Your task to perform on an android device: check android version Image 0: 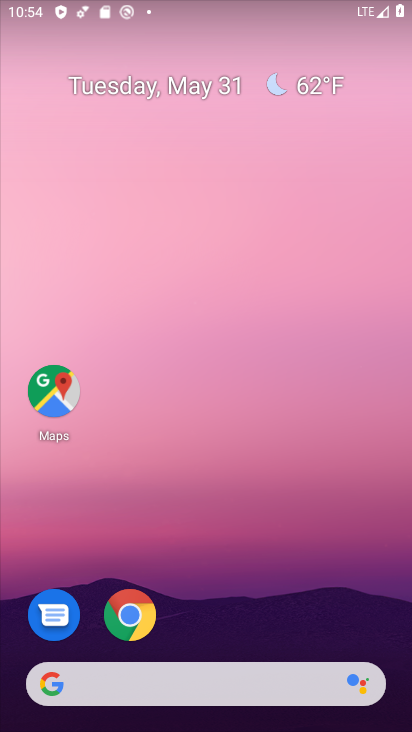
Step 0: drag from (221, 691) to (252, 0)
Your task to perform on an android device: check android version Image 1: 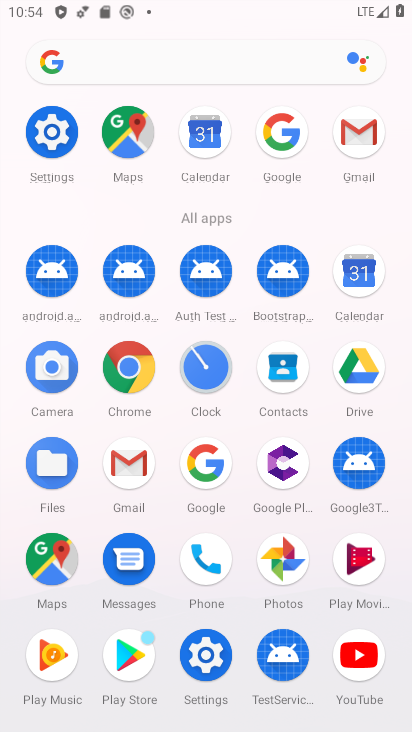
Step 1: click (53, 141)
Your task to perform on an android device: check android version Image 2: 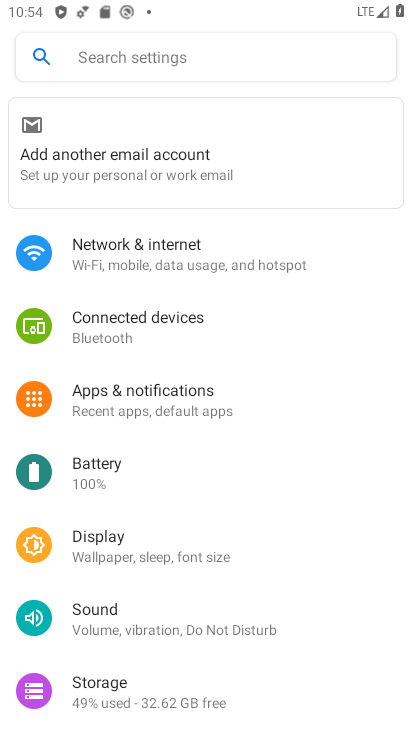
Step 2: drag from (179, 610) to (5, 531)
Your task to perform on an android device: check android version Image 3: 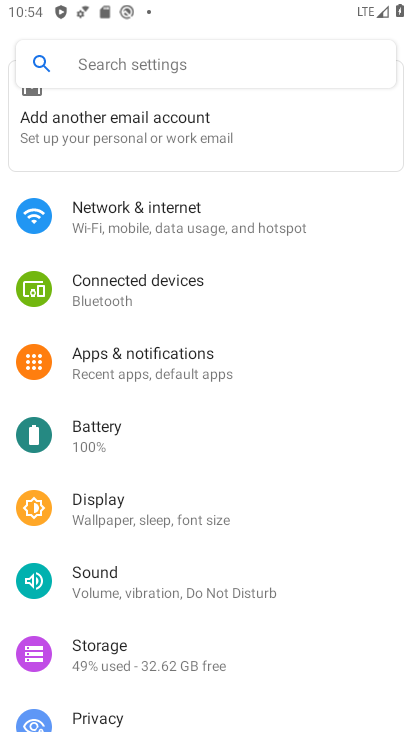
Step 3: drag from (102, 627) to (38, 4)
Your task to perform on an android device: check android version Image 4: 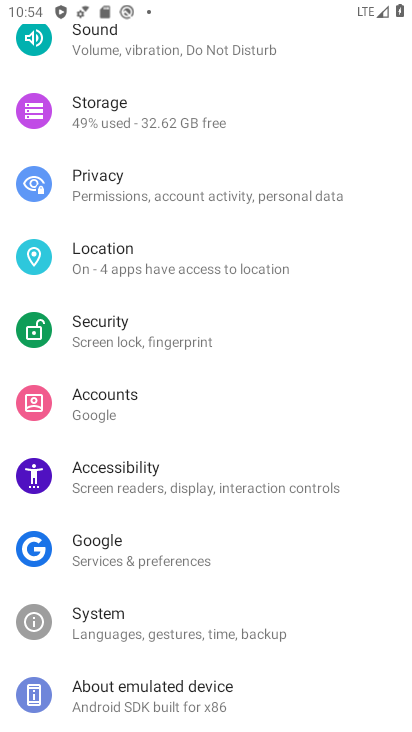
Step 4: click (172, 698)
Your task to perform on an android device: check android version Image 5: 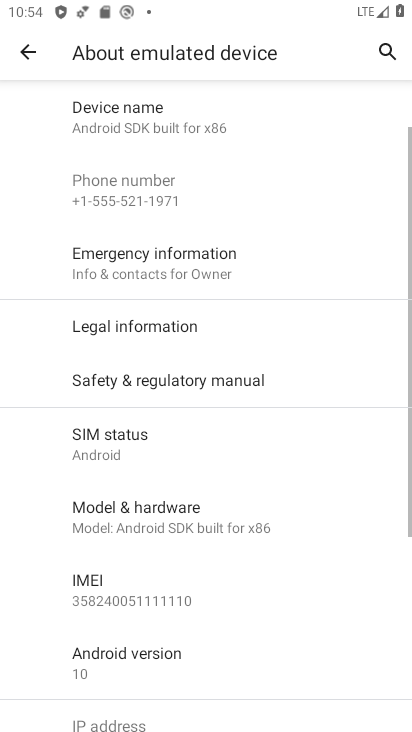
Step 5: click (163, 656)
Your task to perform on an android device: check android version Image 6: 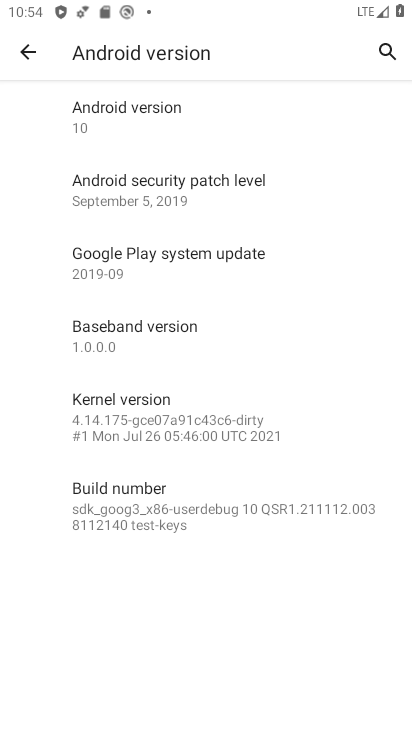
Step 6: task complete